Your task to perform on an android device: visit the assistant section in the google photos Image 0: 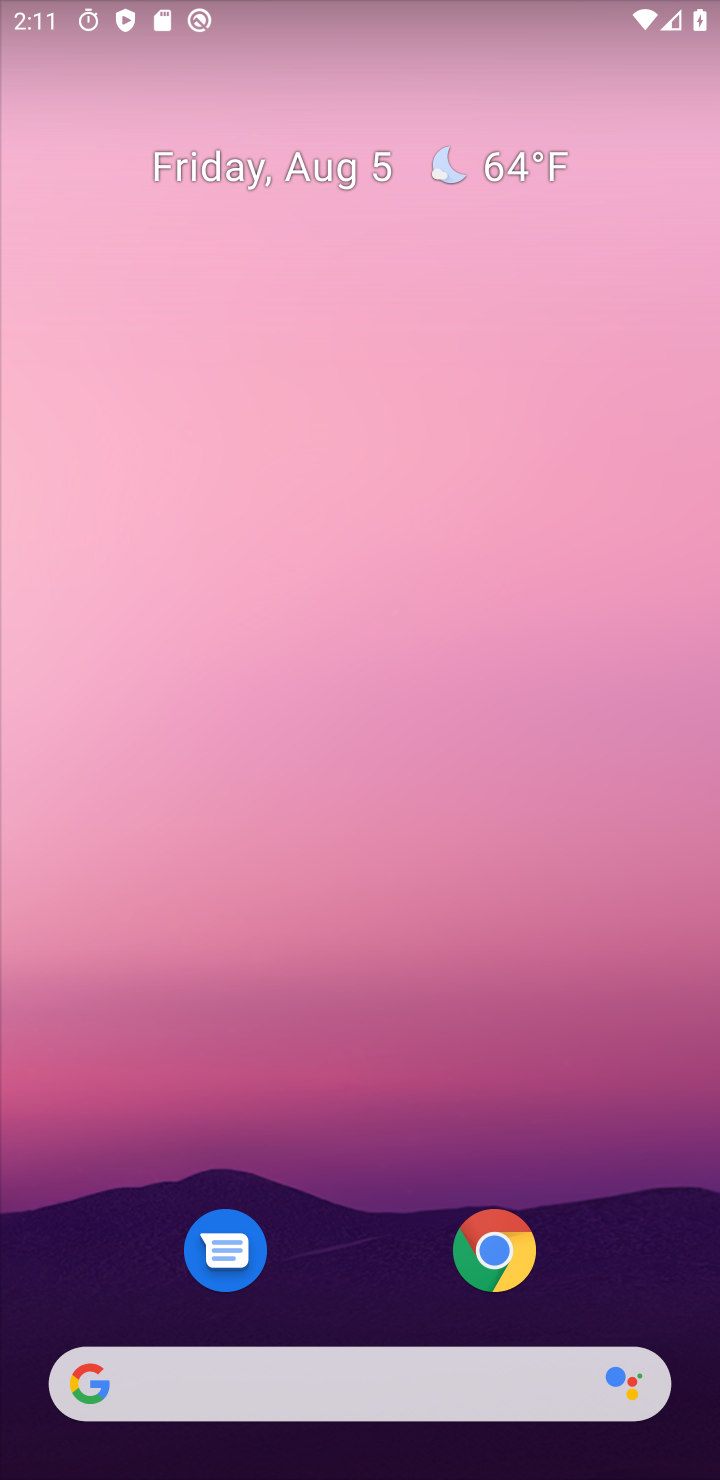
Step 0: click (403, 657)
Your task to perform on an android device: visit the assistant section in the google photos Image 1: 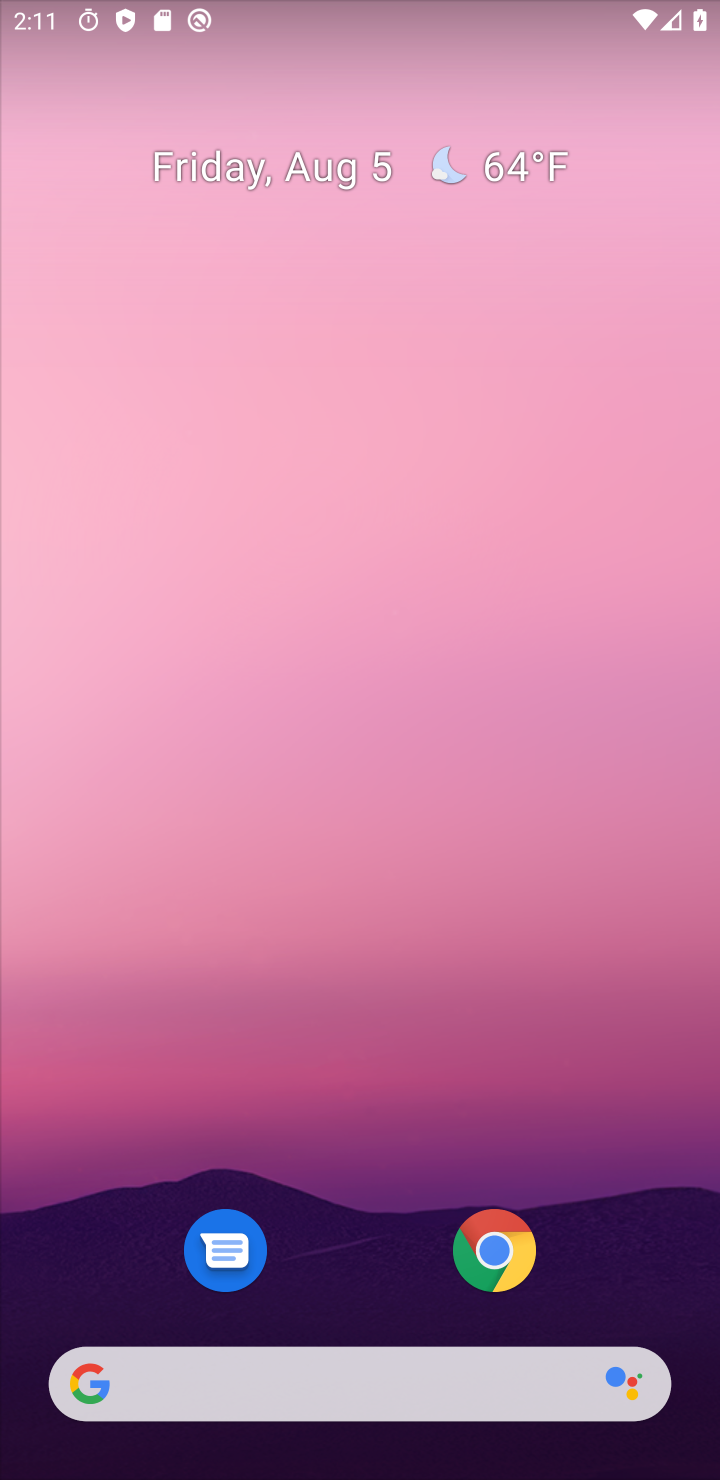
Step 1: drag from (385, 1263) to (480, 276)
Your task to perform on an android device: visit the assistant section in the google photos Image 2: 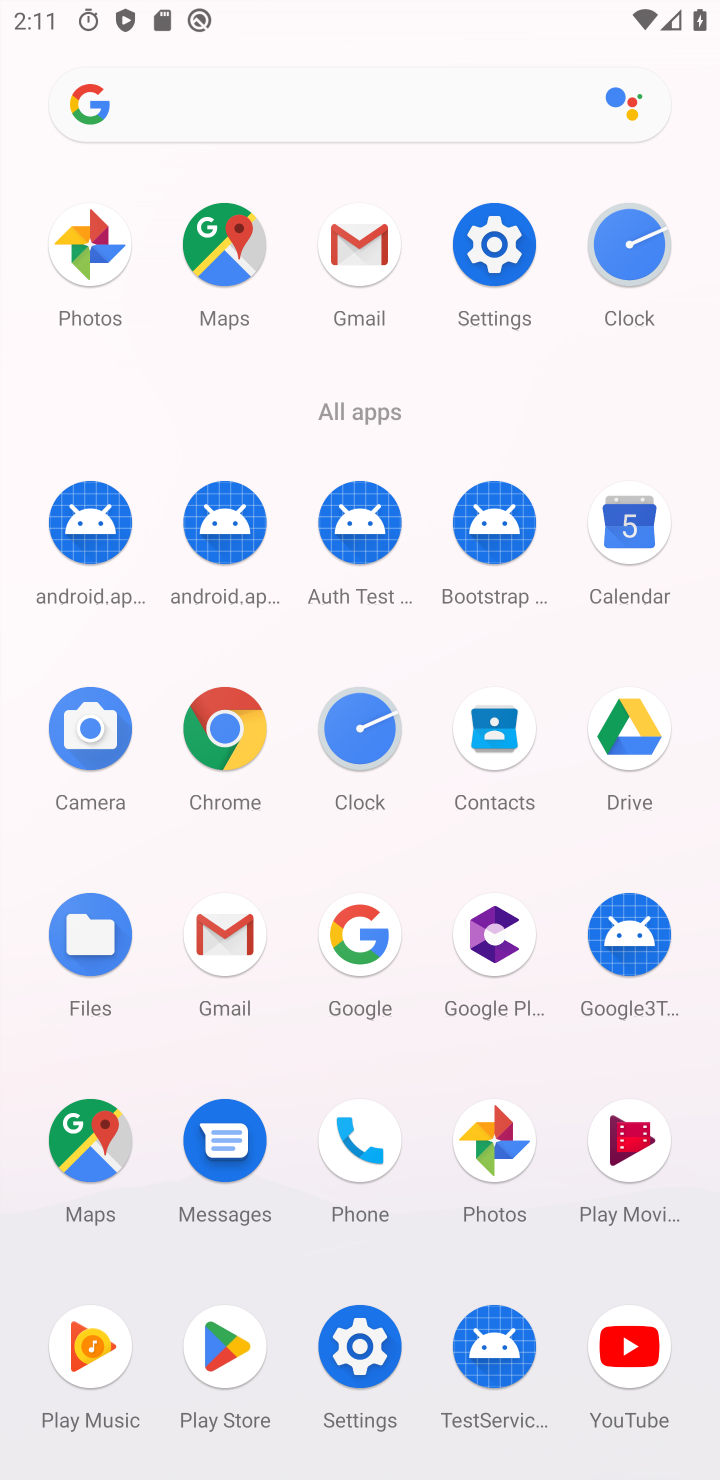
Step 2: click (462, 1125)
Your task to perform on an android device: visit the assistant section in the google photos Image 3: 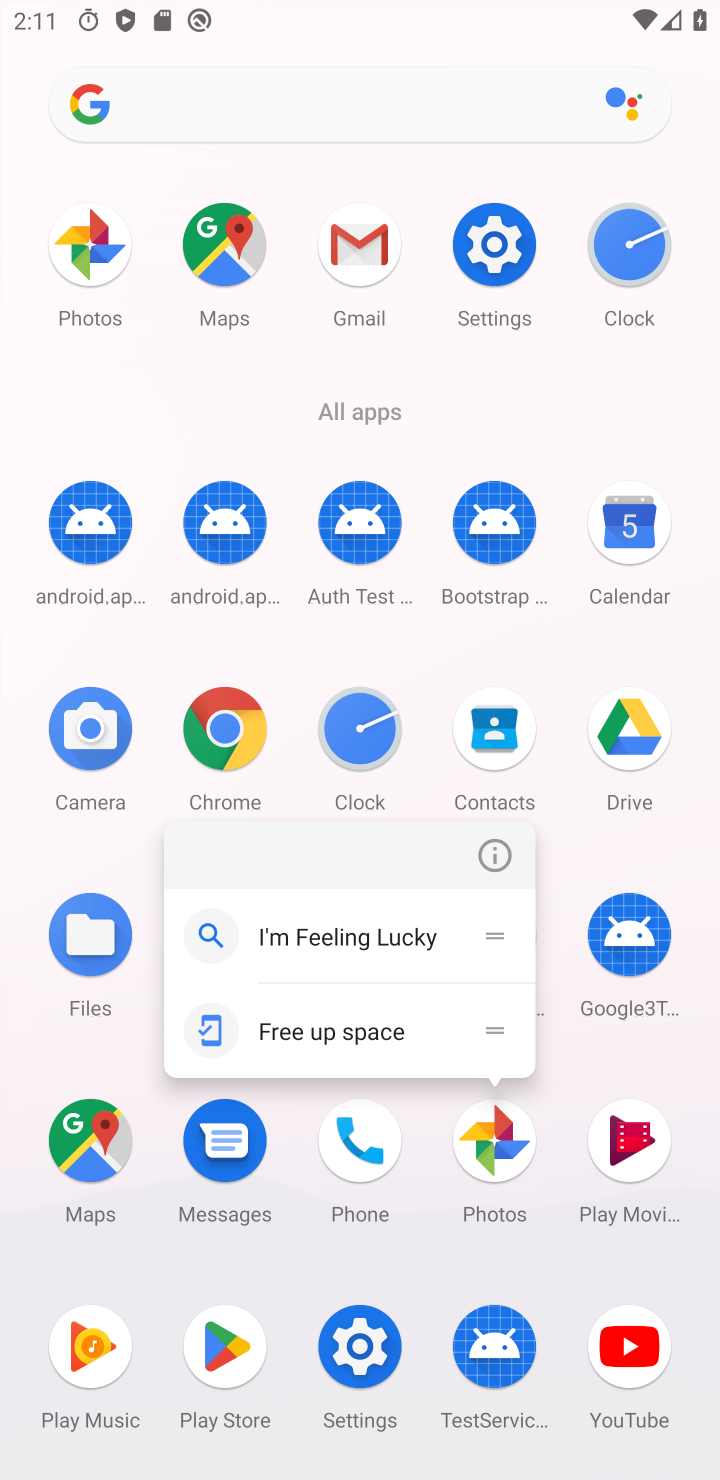
Step 3: click (492, 842)
Your task to perform on an android device: visit the assistant section in the google photos Image 4: 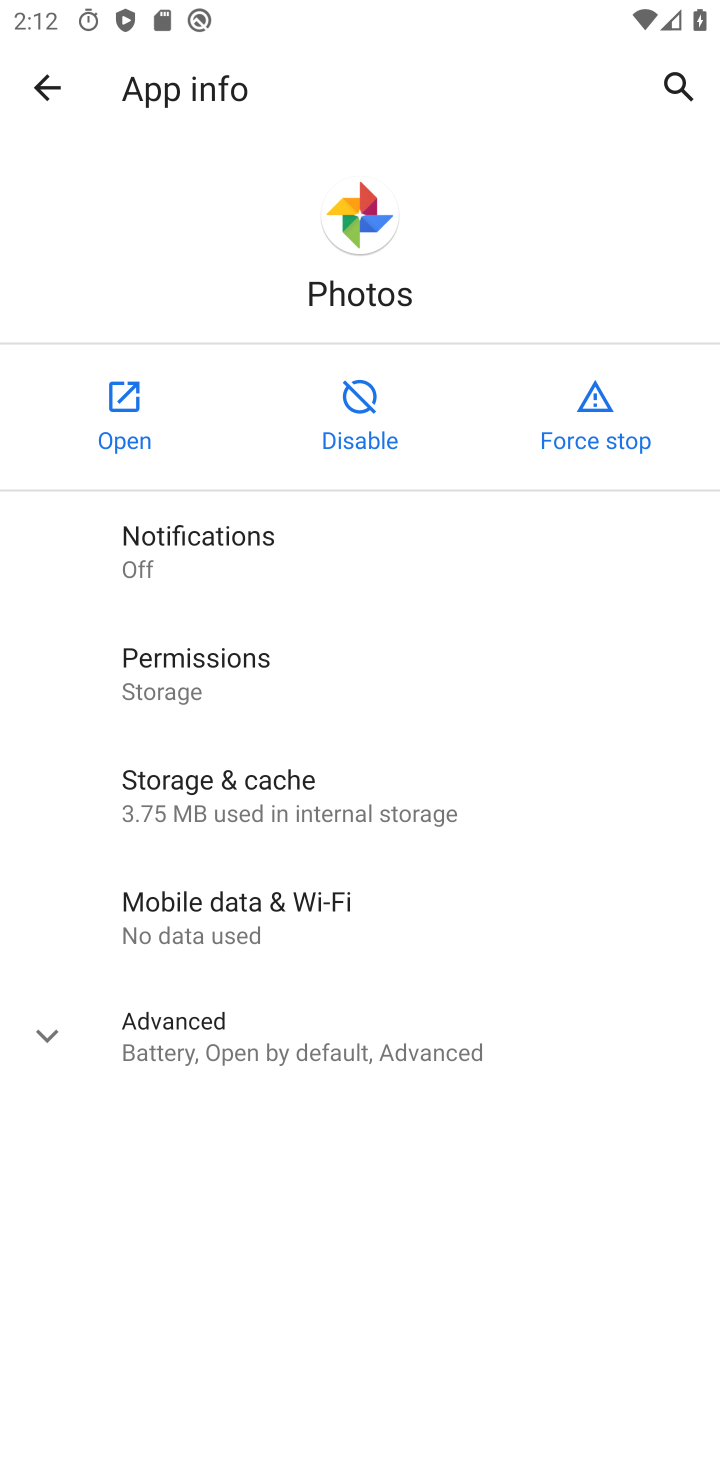
Step 4: click (138, 418)
Your task to perform on an android device: visit the assistant section in the google photos Image 5: 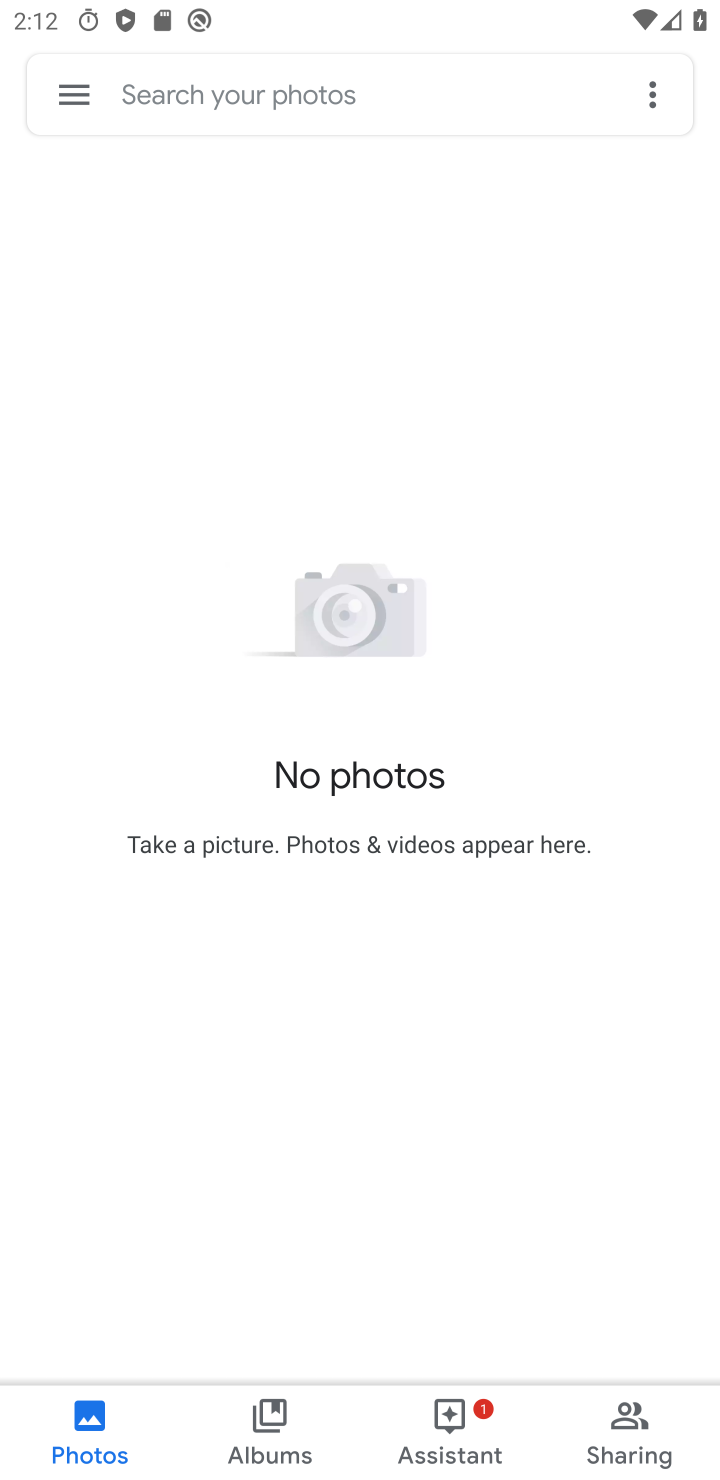
Step 5: click (488, 1451)
Your task to perform on an android device: visit the assistant section in the google photos Image 6: 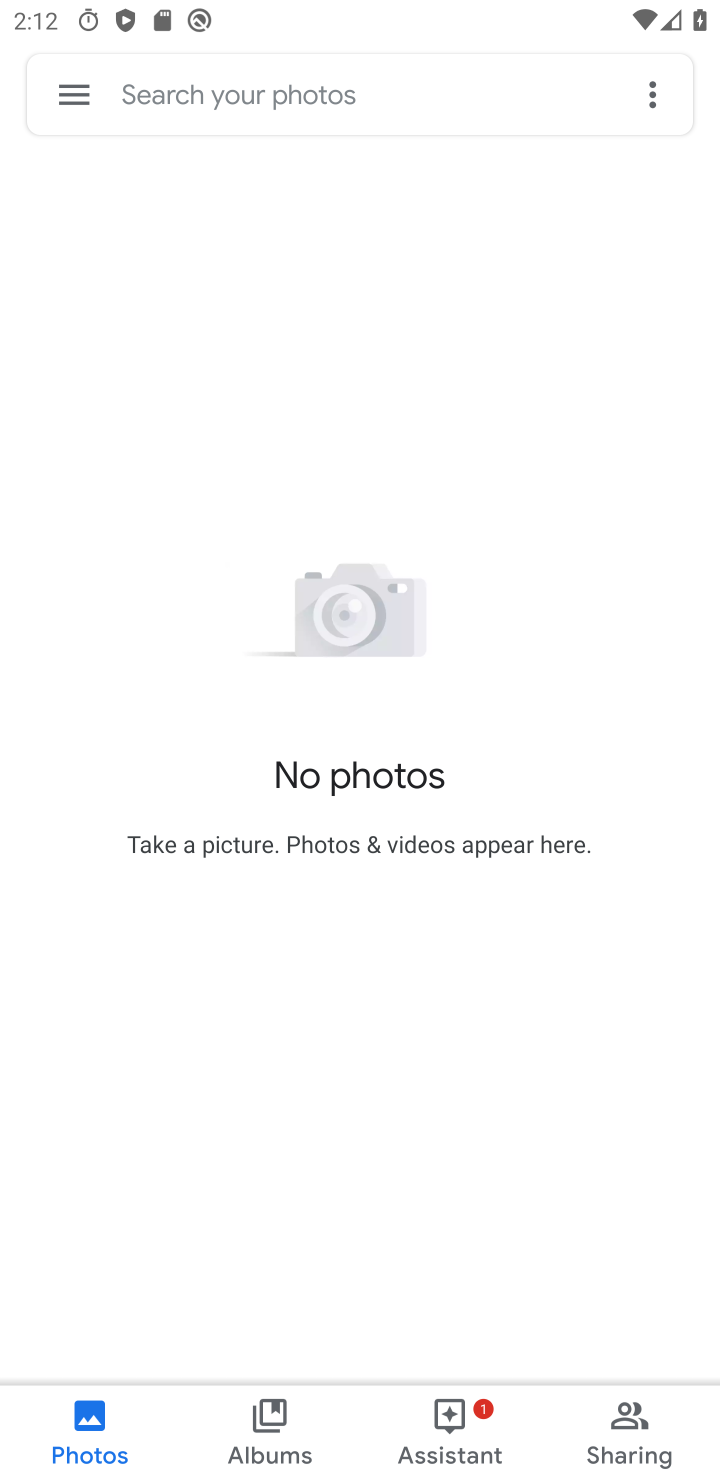
Step 6: click (458, 1440)
Your task to perform on an android device: visit the assistant section in the google photos Image 7: 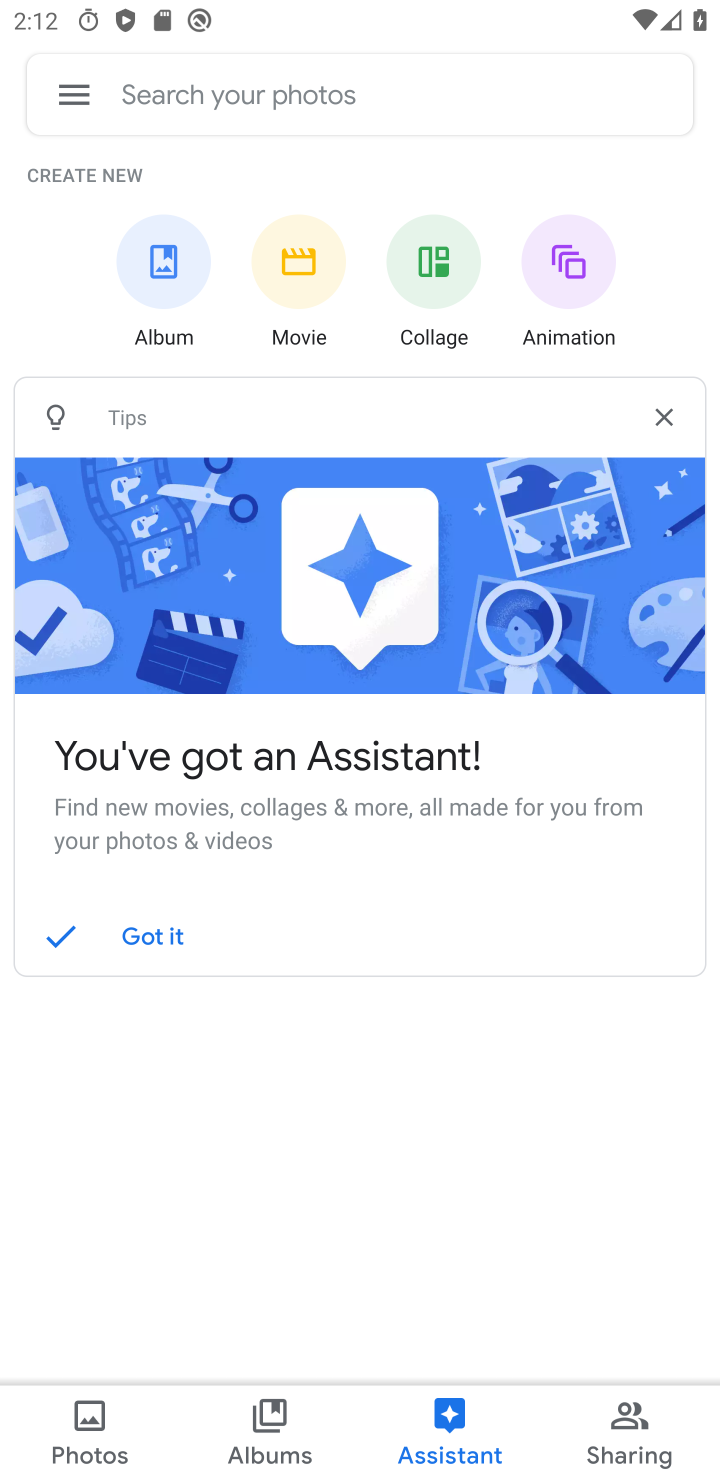
Step 7: task complete